Your task to perform on an android device: turn on the 12-hour format for clock Image 0: 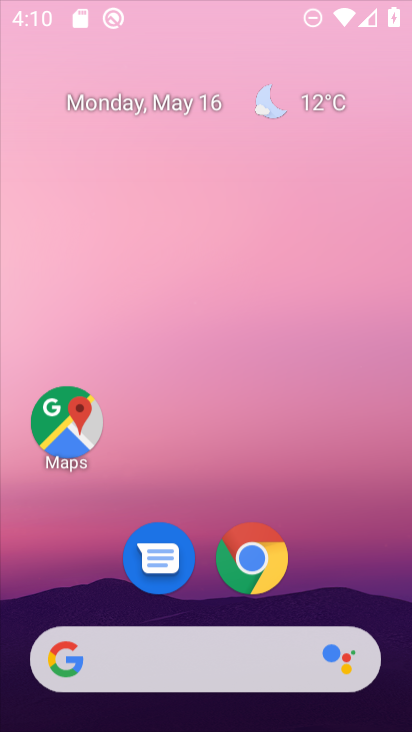
Step 0: drag from (354, 315) to (332, 173)
Your task to perform on an android device: turn on the 12-hour format for clock Image 1: 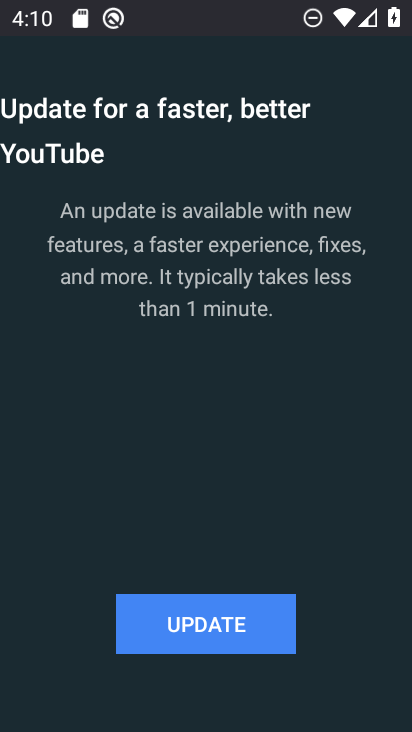
Step 1: press back button
Your task to perform on an android device: turn on the 12-hour format for clock Image 2: 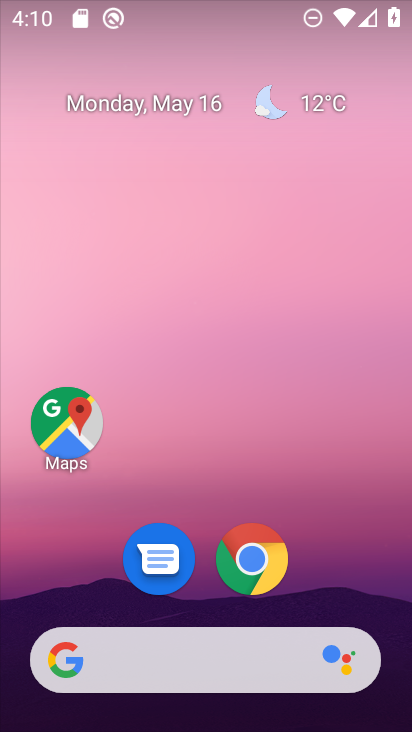
Step 2: drag from (320, 542) to (306, 14)
Your task to perform on an android device: turn on the 12-hour format for clock Image 3: 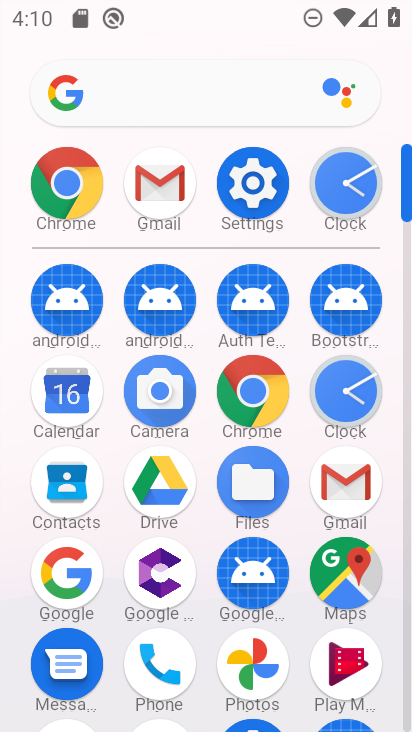
Step 3: click (338, 194)
Your task to perform on an android device: turn on the 12-hour format for clock Image 4: 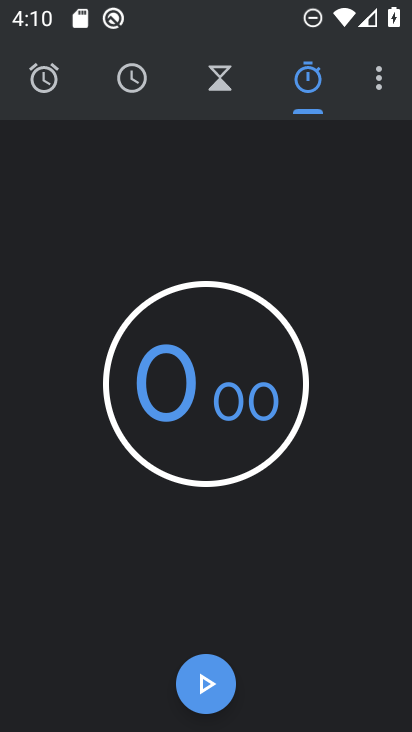
Step 4: click (378, 93)
Your task to perform on an android device: turn on the 12-hour format for clock Image 5: 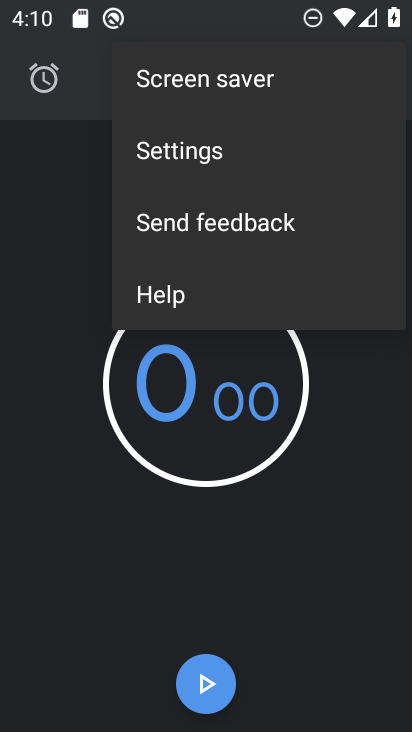
Step 5: click (320, 177)
Your task to perform on an android device: turn on the 12-hour format for clock Image 6: 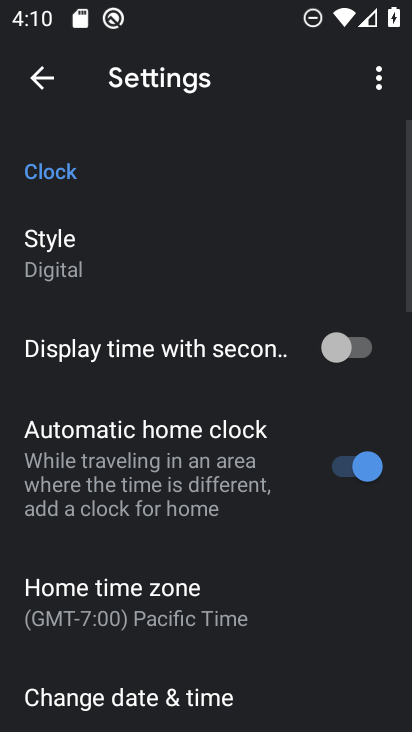
Step 6: drag from (279, 525) to (267, 376)
Your task to perform on an android device: turn on the 12-hour format for clock Image 7: 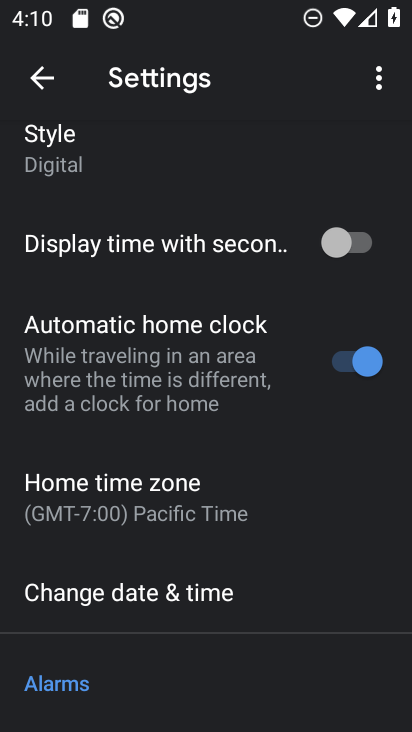
Step 7: click (239, 579)
Your task to perform on an android device: turn on the 12-hour format for clock Image 8: 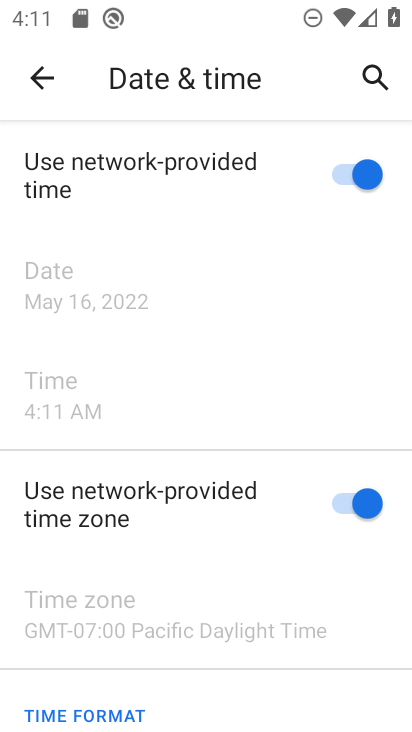
Step 8: task complete